Your task to perform on an android device: Open battery settings Image 0: 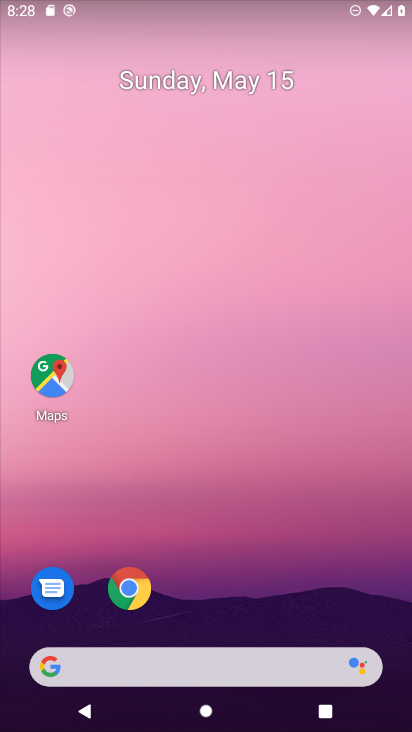
Step 0: press home button
Your task to perform on an android device: Open battery settings Image 1: 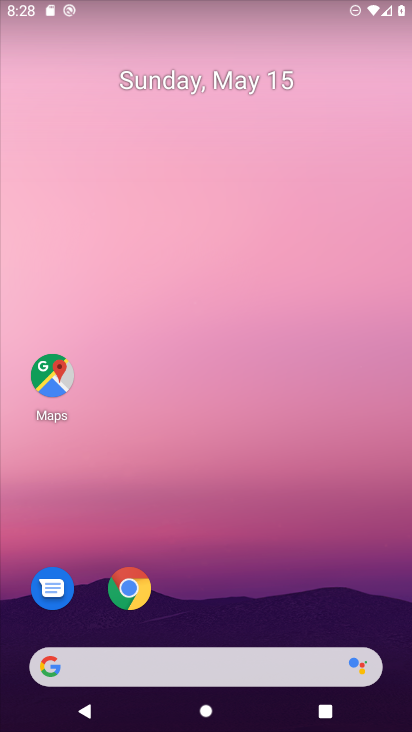
Step 1: drag from (230, 625) to (281, 168)
Your task to perform on an android device: Open battery settings Image 2: 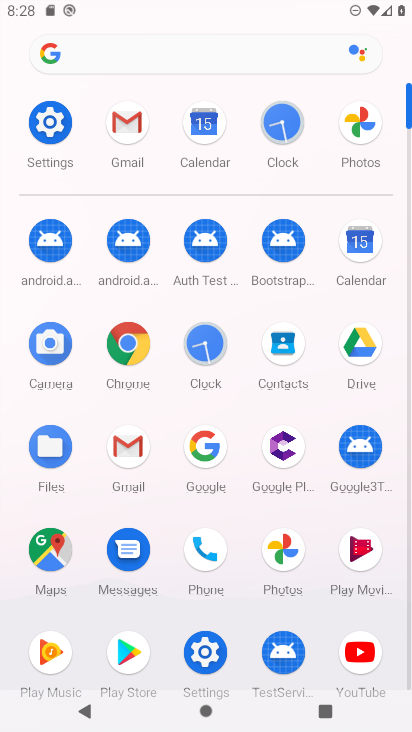
Step 2: click (46, 114)
Your task to perform on an android device: Open battery settings Image 3: 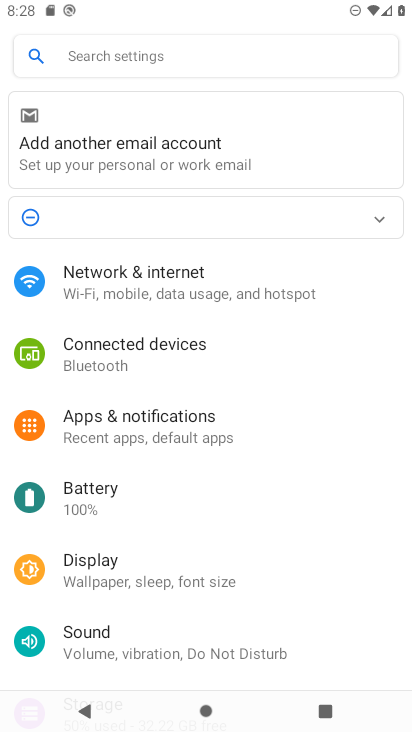
Step 3: click (122, 496)
Your task to perform on an android device: Open battery settings Image 4: 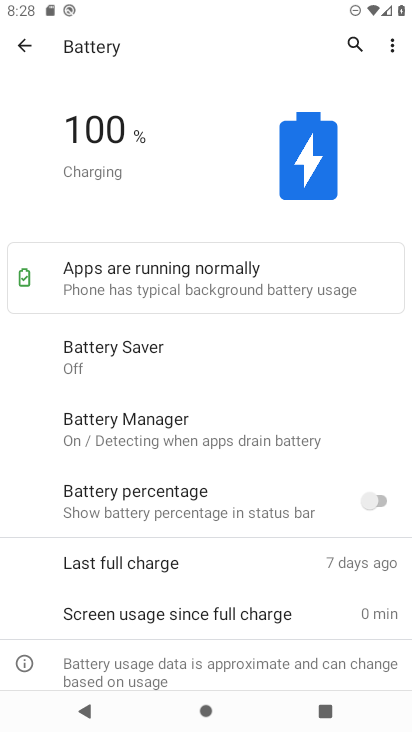
Step 4: task complete